Your task to perform on an android device: What's on the menu at Denny's? Image 0: 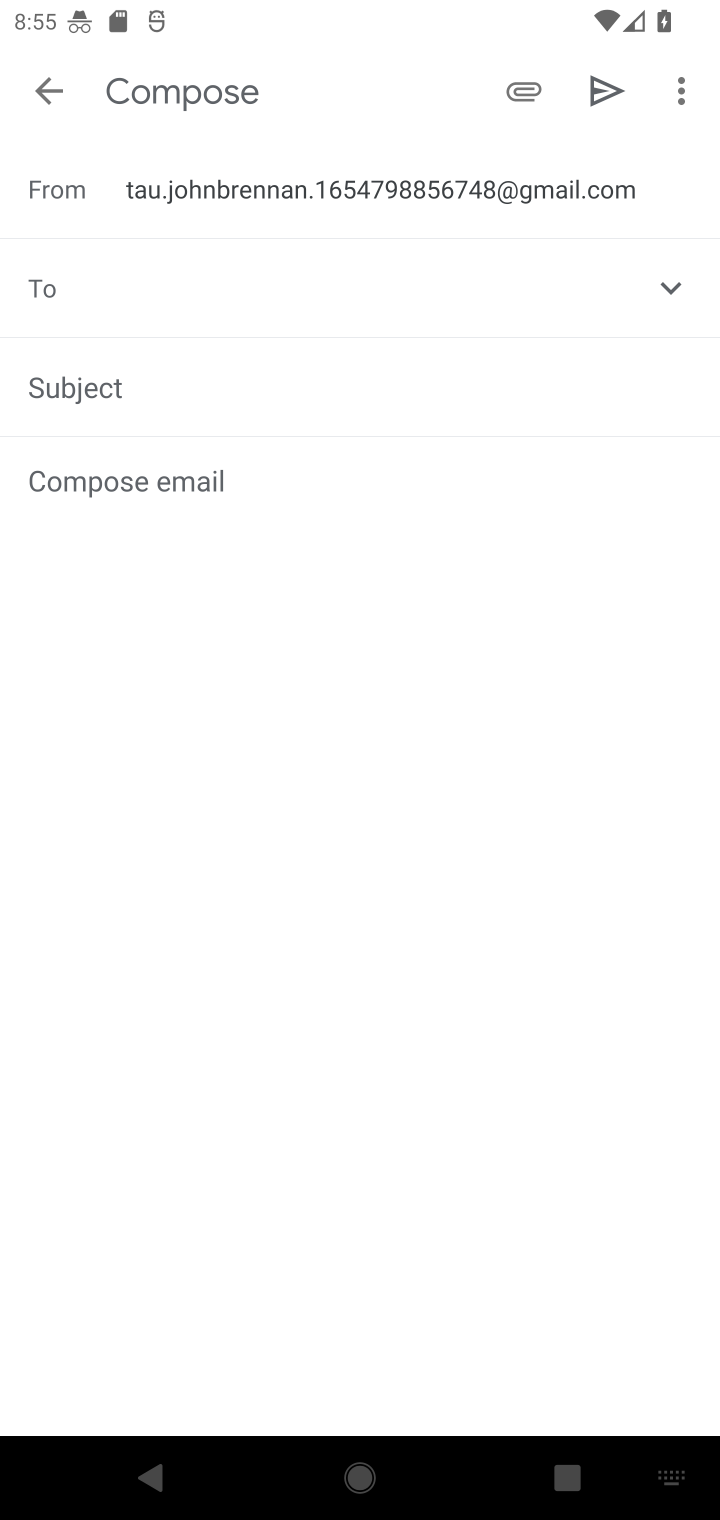
Step 0: press home button
Your task to perform on an android device: What's on the menu at Denny's? Image 1: 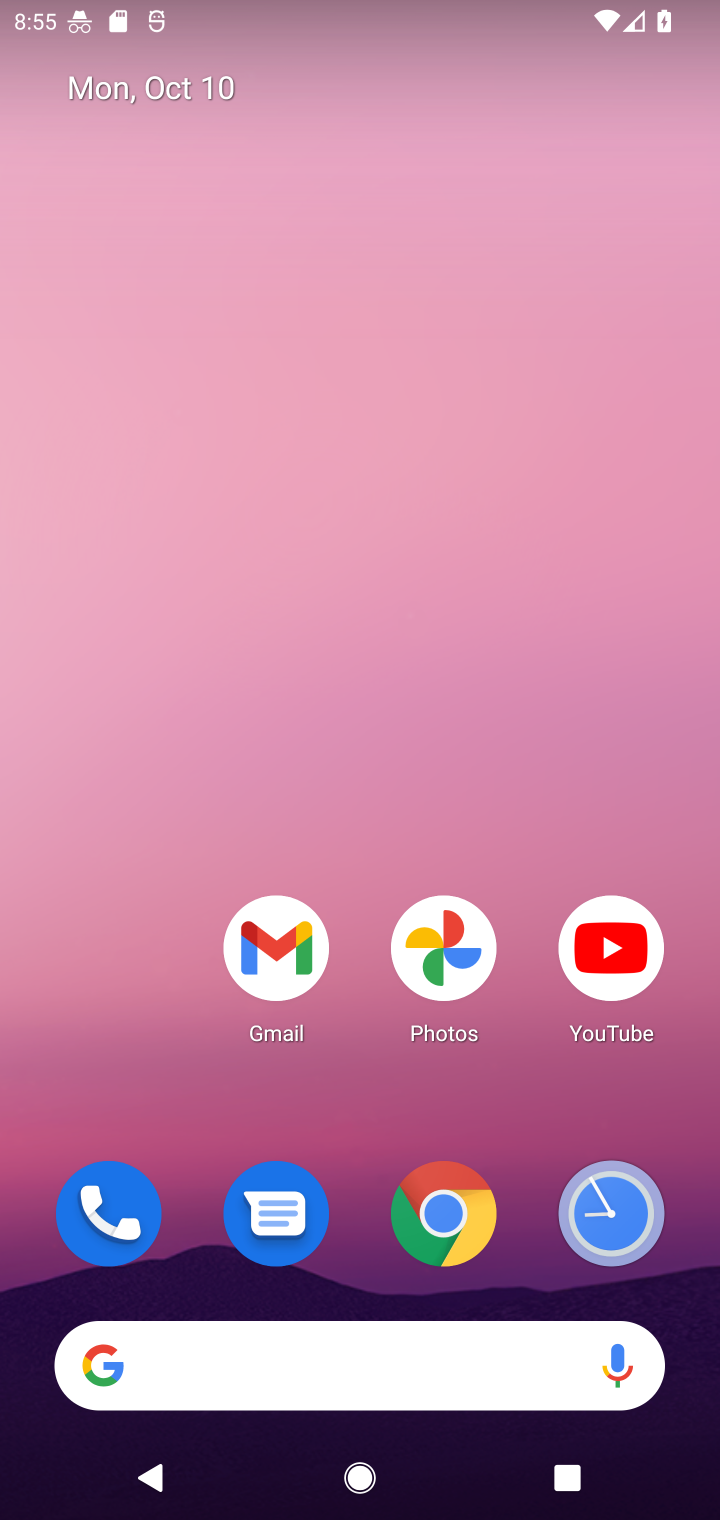
Step 1: click (309, 1379)
Your task to perform on an android device: What's on the menu at Denny's? Image 2: 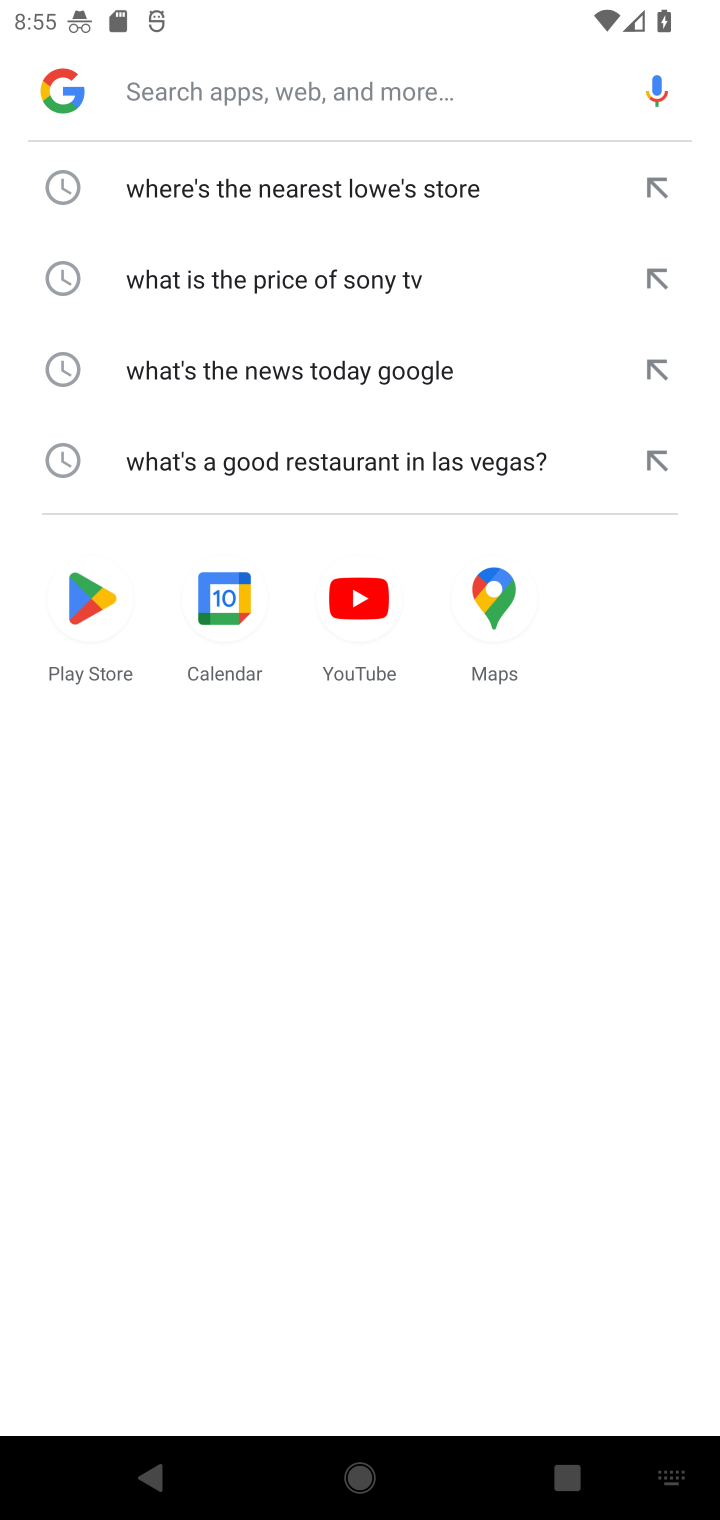
Step 2: click (203, 89)
Your task to perform on an android device: What's on the menu at Denny's? Image 3: 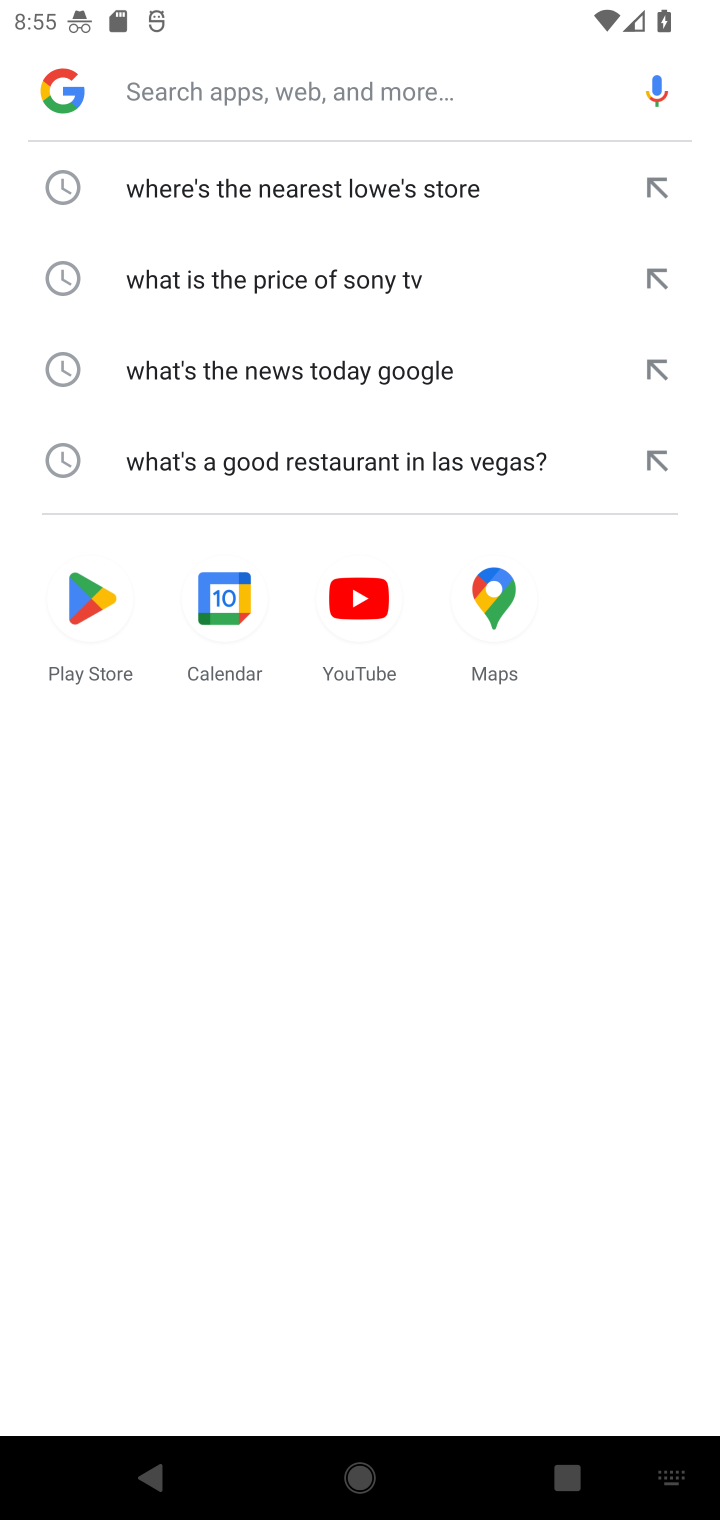
Step 3: type "What's on the menu at Denny's?"
Your task to perform on an android device: What's on the menu at Denny's? Image 4: 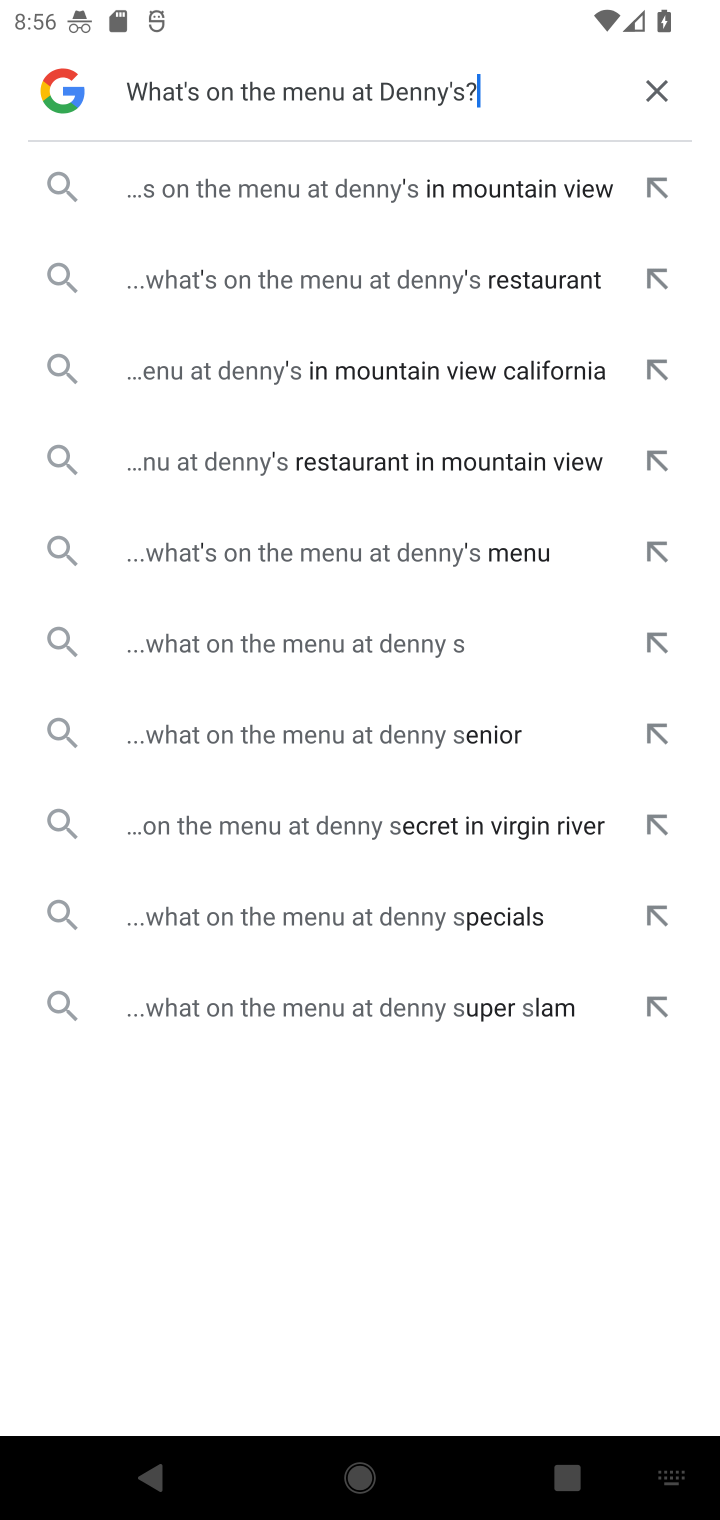
Step 4: click (236, 571)
Your task to perform on an android device: What's on the menu at Denny's? Image 5: 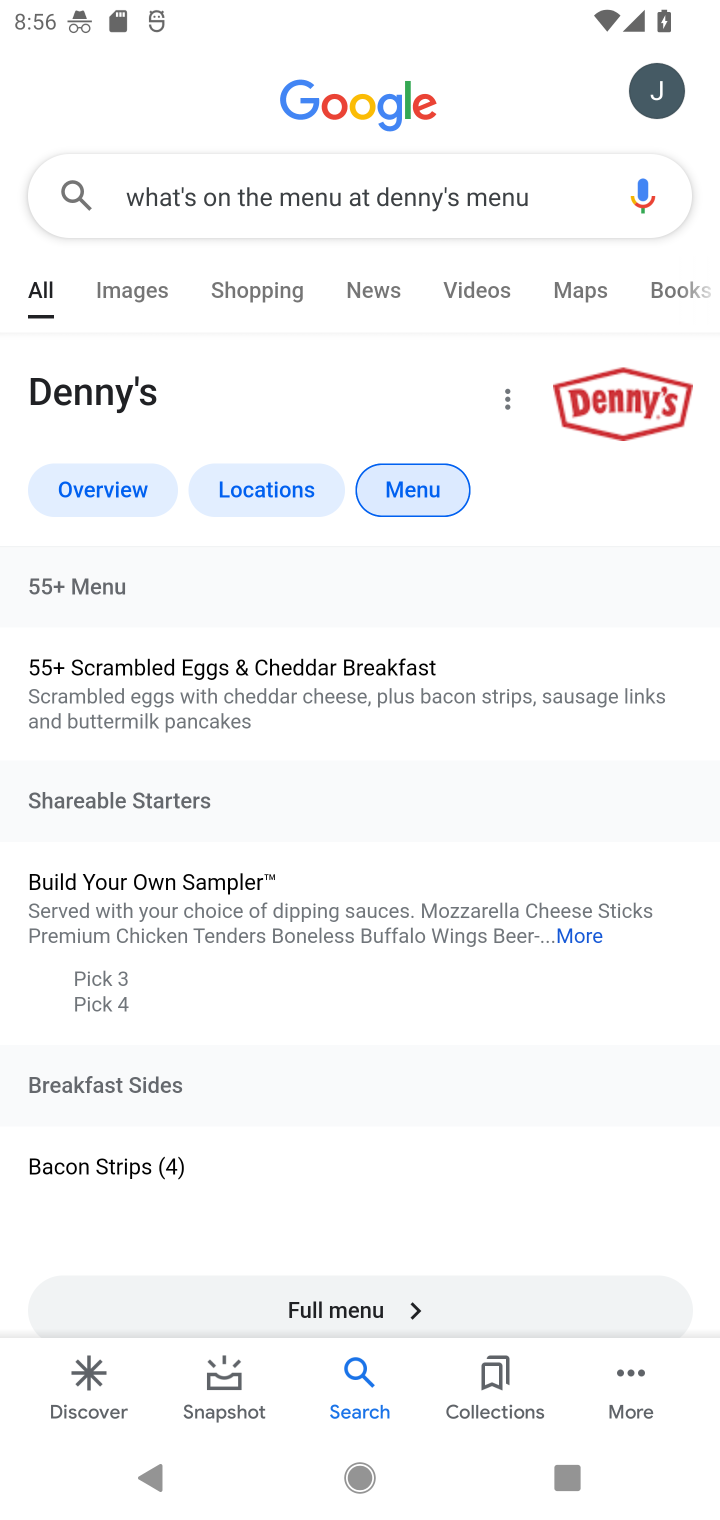
Step 5: task complete